Your task to perform on an android device: Go to Maps Image 0: 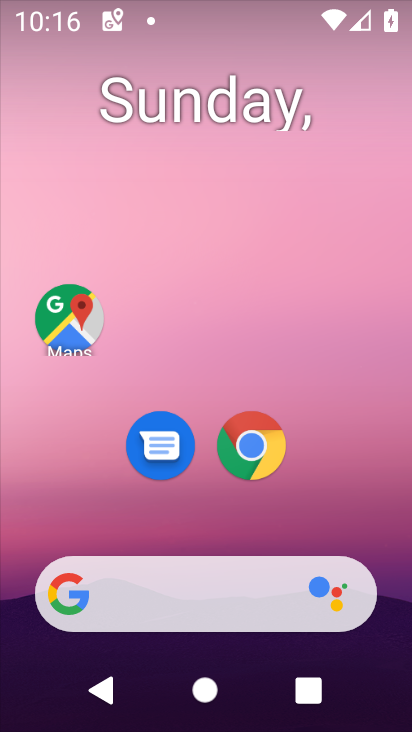
Step 0: press home button
Your task to perform on an android device: Go to Maps Image 1: 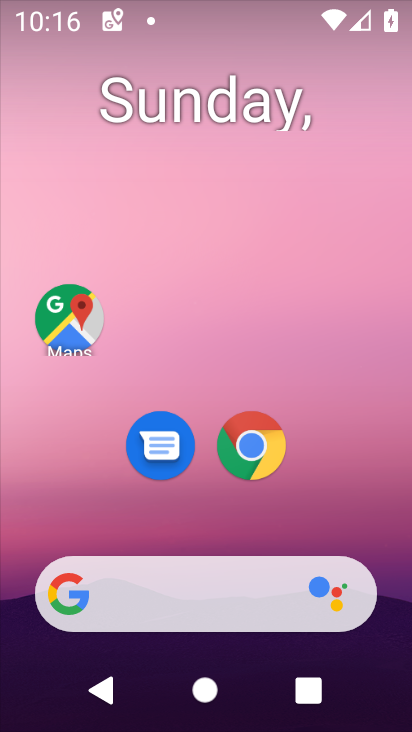
Step 1: click (70, 323)
Your task to perform on an android device: Go to Maps Image 2: 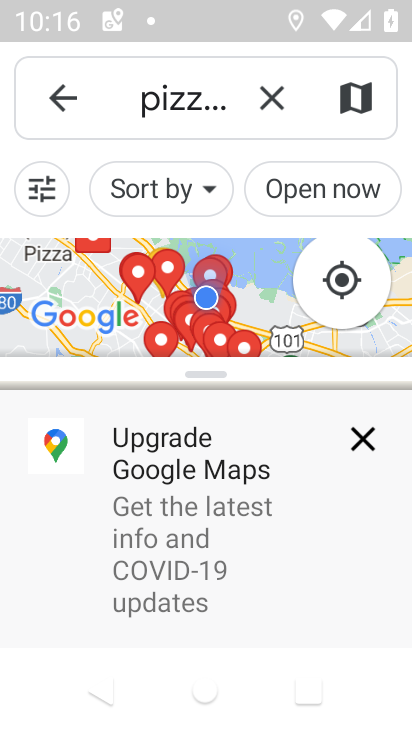
Step 2: task complete